Your task to perform on an android device: uninstall "Microsoft Outlook" Image 0: 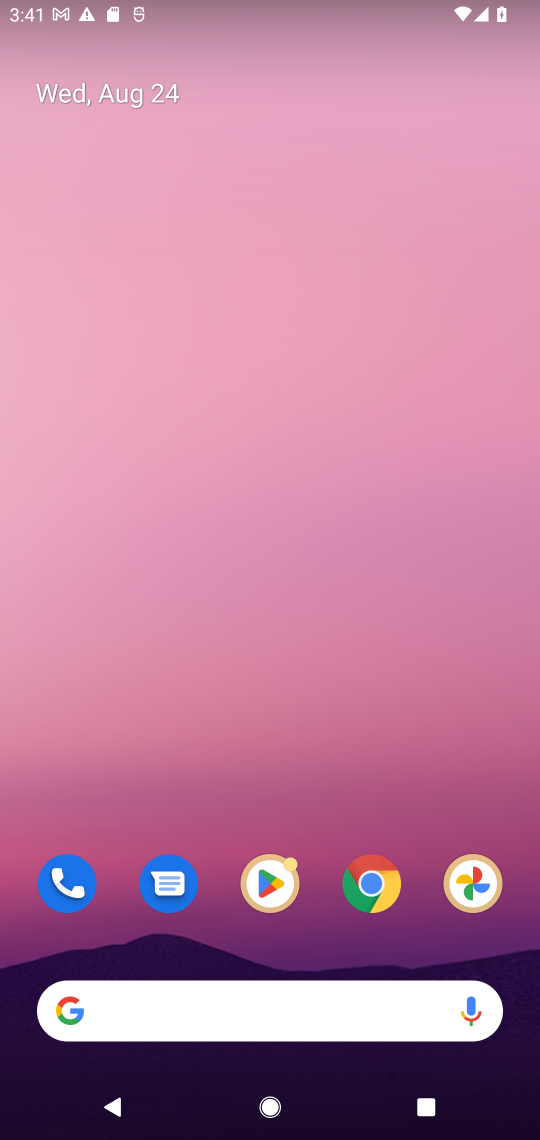
Step 0: drag from (266, 812) to (324, 267)
Your task to perform on an android device: uninstall "Microsoft Outlook" Image 1: 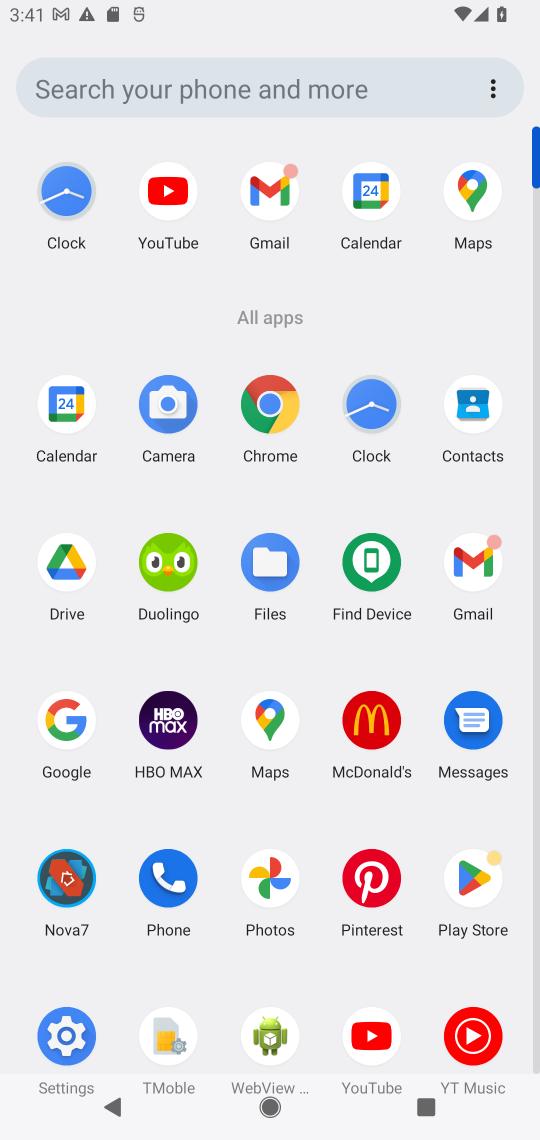
Step 1: click (472, 884)
Your task to perform on an android device: uninstall "Microsoft Outlook" Image 2: 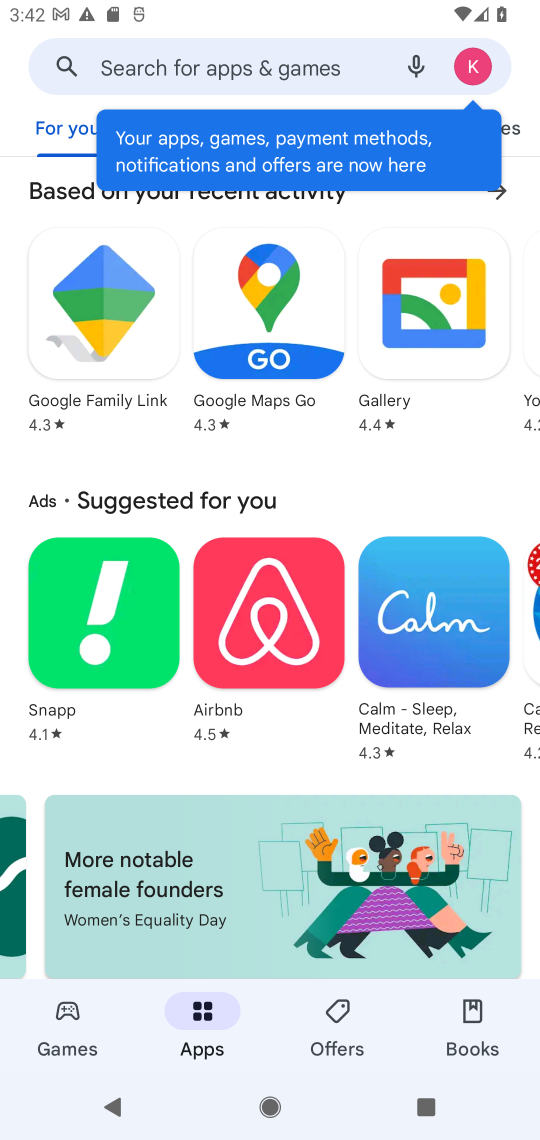
Step 2: type "Microsoft Outlook"
Your task to perform on an android device: uninstall "Microsoft Outlook" Image 3: 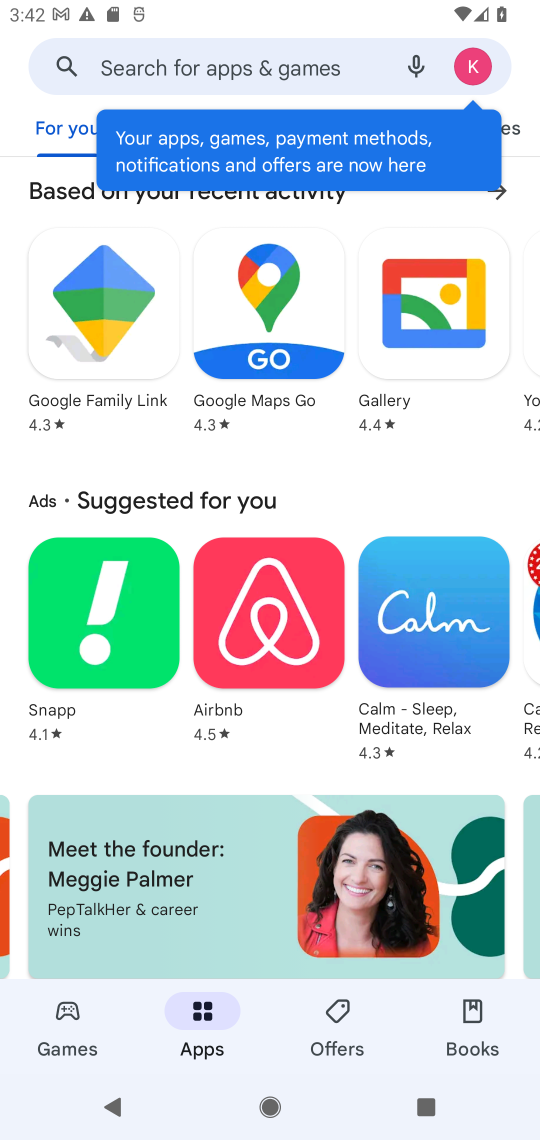
Step 3: click (181, 74)
Your task to perform on an android device: uninstall "Microsoft Outlook" Image 4: 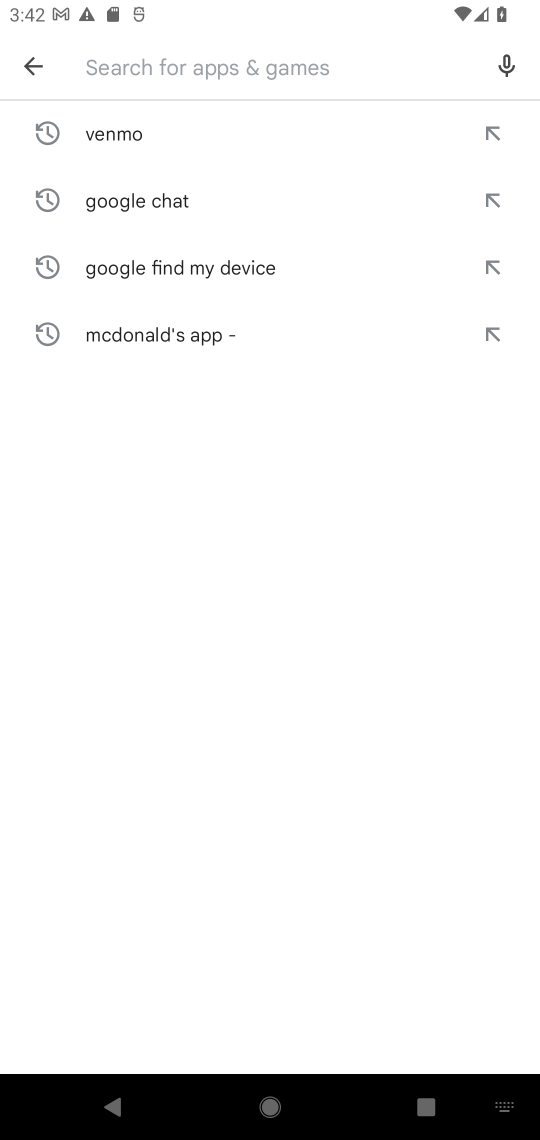
Step 4: type "Microsoft Outlook"
Your task to perform on an android device: uninstall "Microsoft Outlook" Image 5: 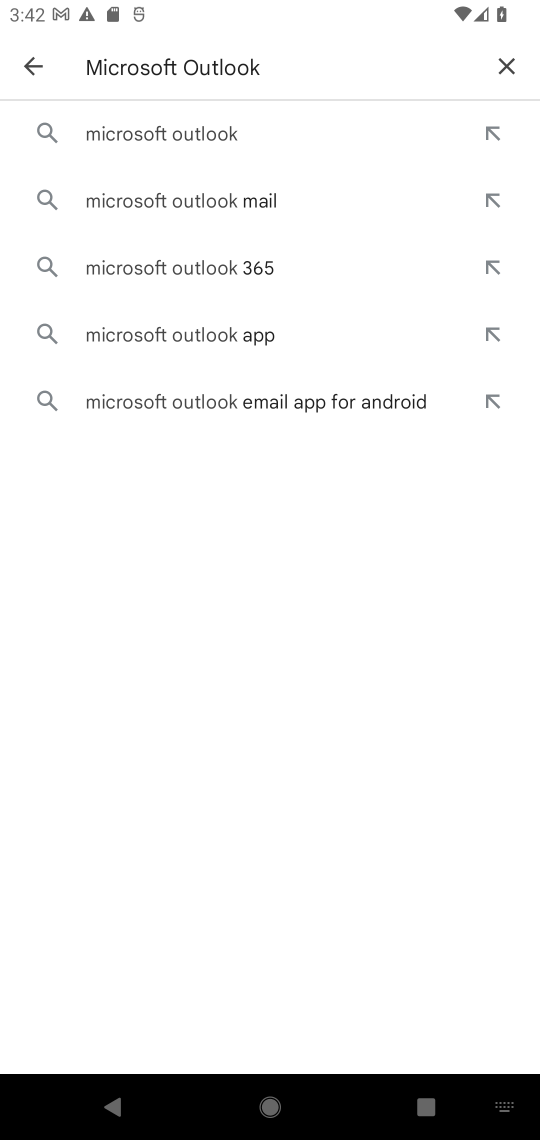
Step 5: click (205, 137)
Your task to perform on an android device: uninstall "Microsoft Outlook" Image 6: 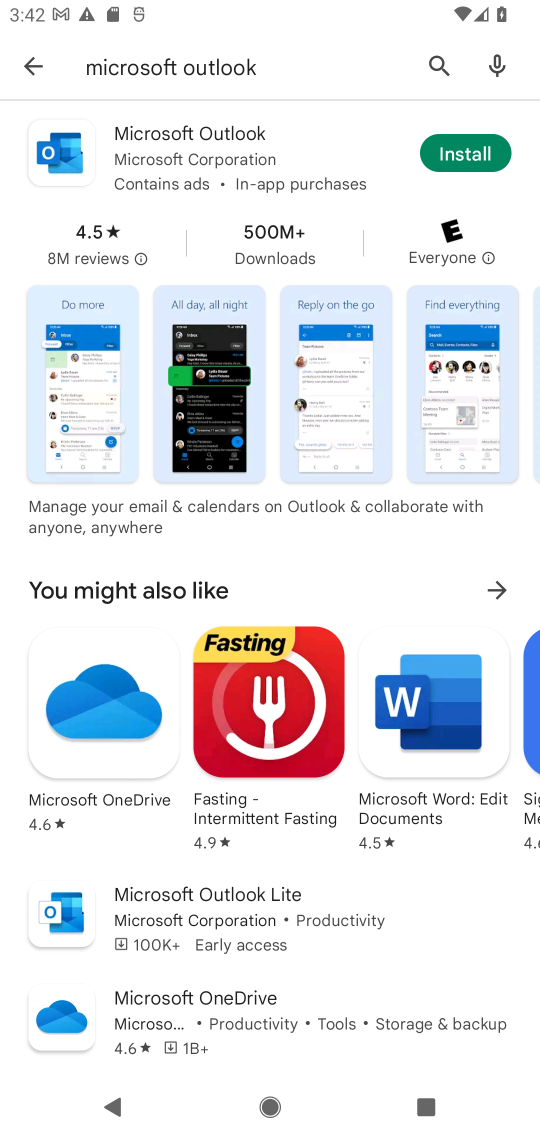
Step 6: task complete